Your task to perform on an android device: star an email in the gmail app Image 0: 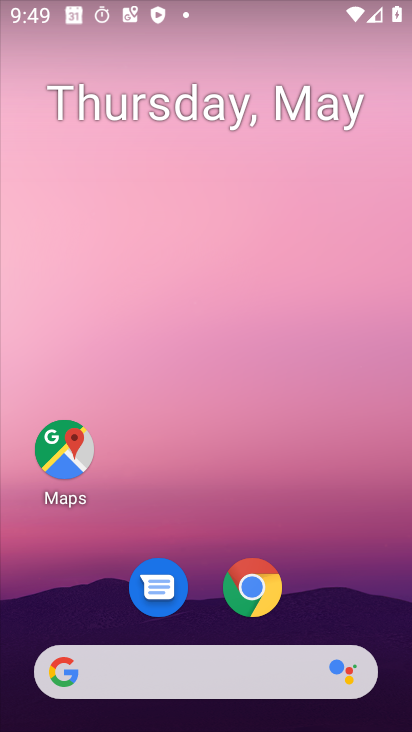
Step 0: drag from (383, 619) to (400, 0)
Your task to perform on an android device: star an email in the gmail app Image 1: 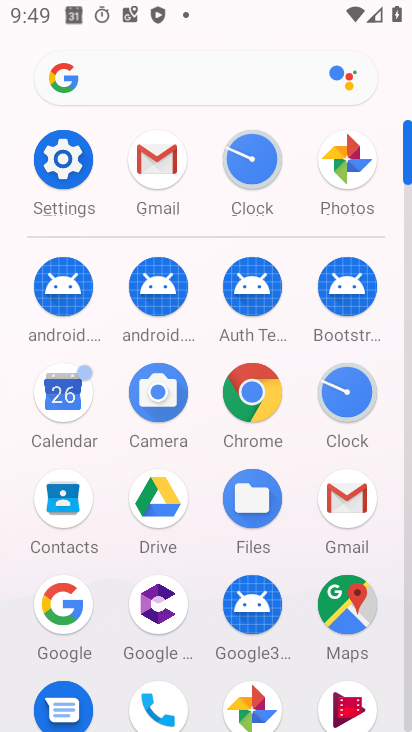
Step 1: click (153, 157)
Your task to perform on an android device: star an email in the gmail app Image 2: 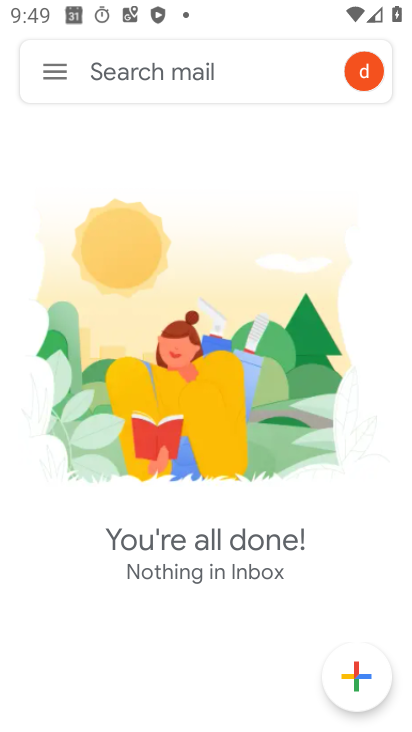
Step 2: click (50, 71)
Your task to perform on an android device: star an email in the gmail app Image 3: 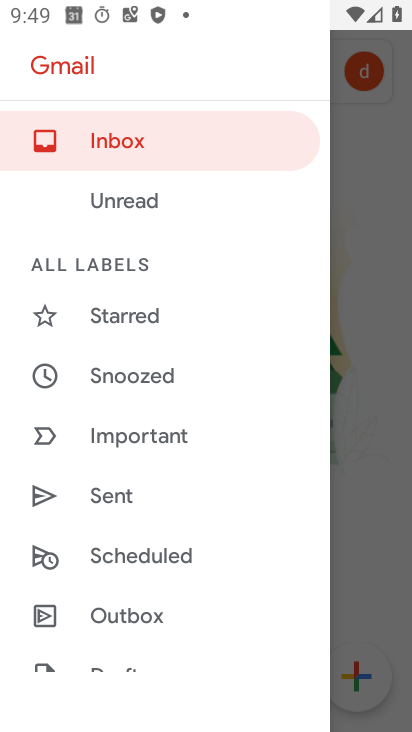
Step 3: drag from (181, 525) to (149, 137)
Your task to perform on an android device: star an email in the gmail app Image 4: 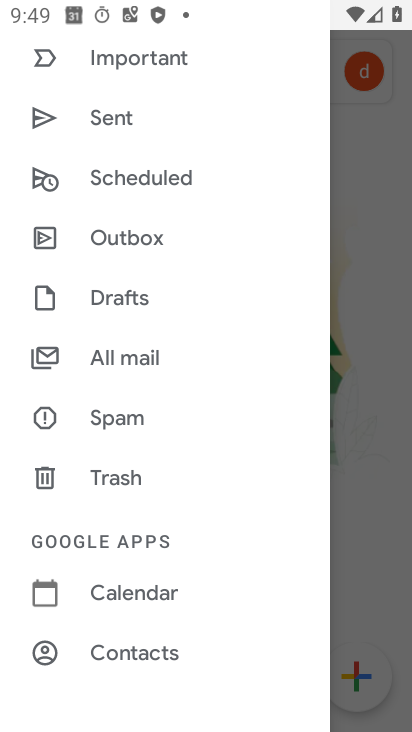
Step 4: click (125, 364)
Your task to perform on an android device: star an email in the gmail app Image 5: 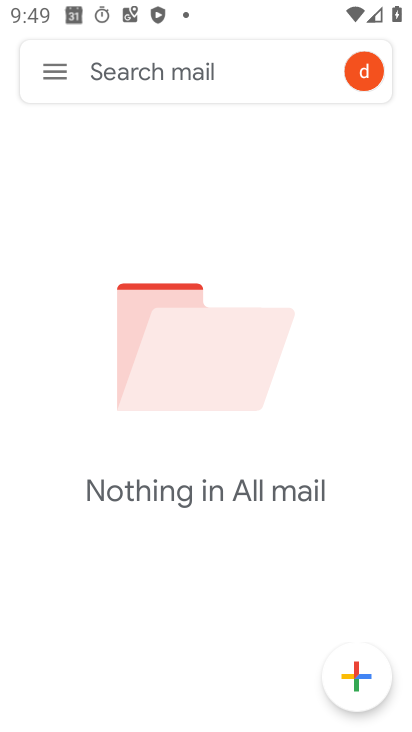
Step 5: task complete